Your task to perform on an android device: Search for vegetarian restaurants on Maps Image 0: 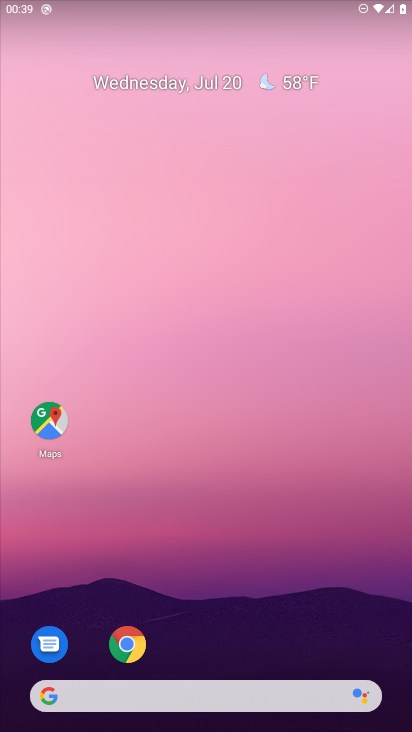
Step 0: click (49, 423)
Your task to perform on an android device: Search for vegetarian restaurants on Maps Image 1: 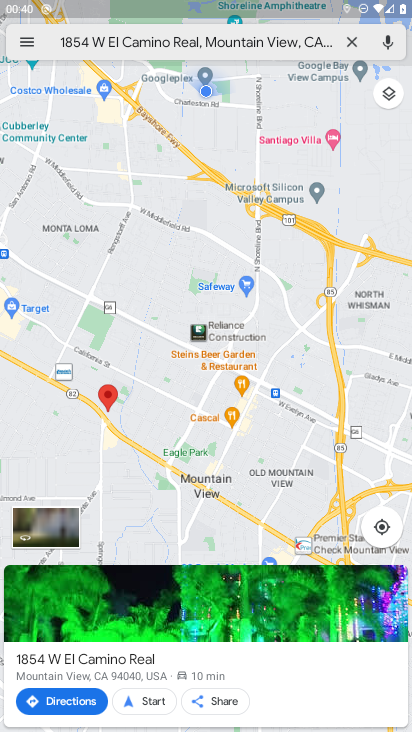
Step 1: click (353, 41)
Your task to perform on an android device: Search for vegetarian restaurants on Maps Image 2: 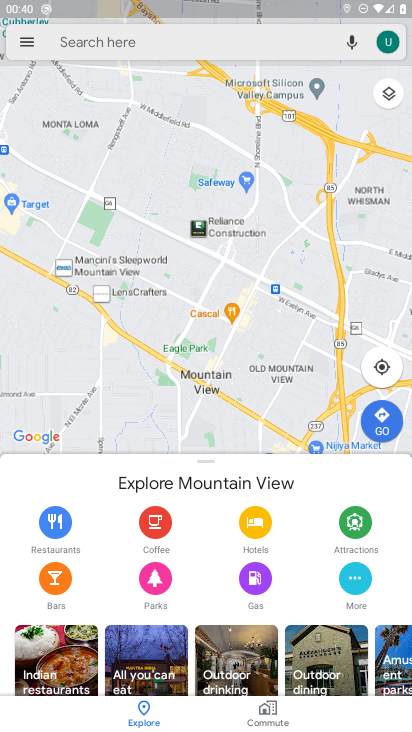
Step 2: click (93, 40)
Your task to perform on an android device: Search for vegetarian restaurants on Maps Image 3: 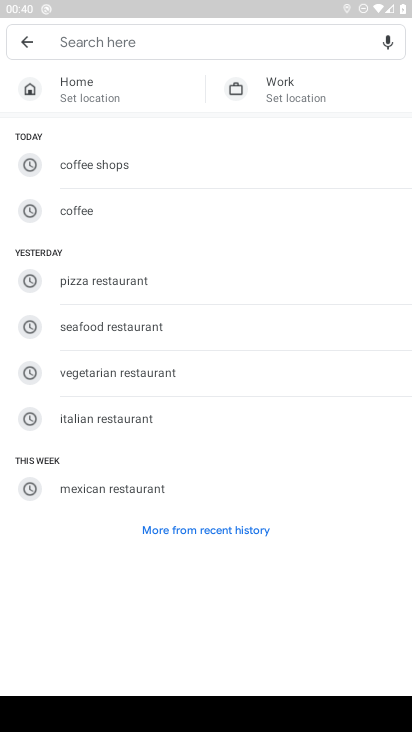
Step 3: click (92, 372)
Your task to perform on an android device: Search for vegetarian restaurants on Maps Image 4: 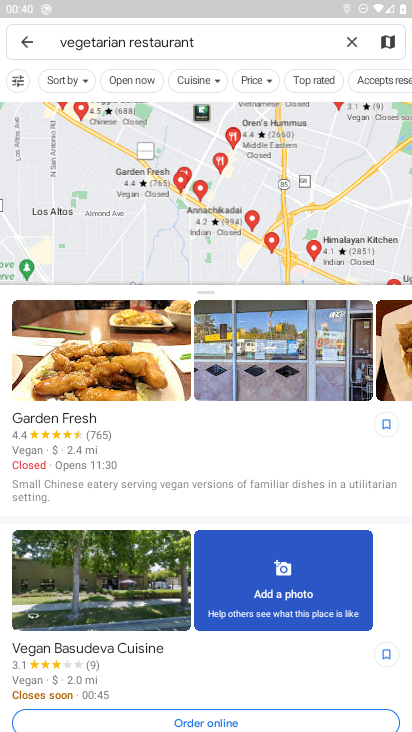
Step 4: task complete